Your task to perform on an android device: Open Wikipedia Image 0: 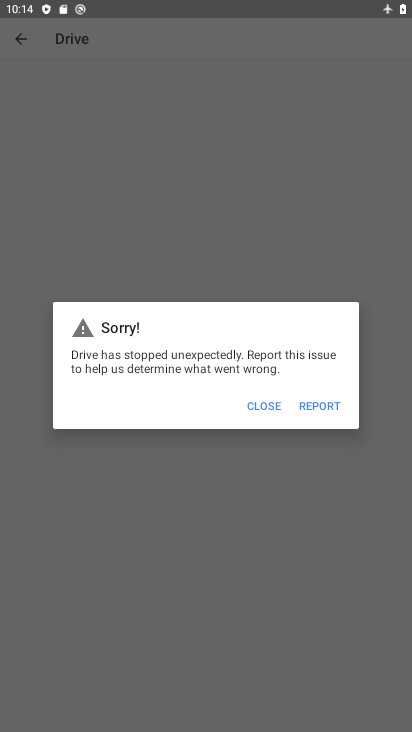
Step 0: press home button
Your task to perform on an android device: Open Wikipedia Image 1: 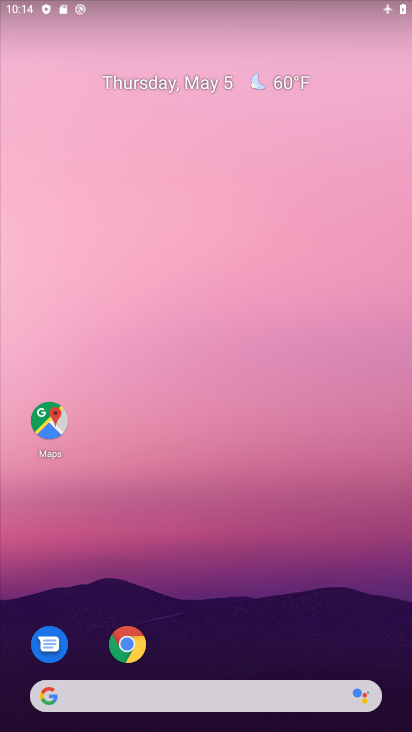
Step 1: drag from (325, 612) to (329, 183)
Your task to perform on an android device: Open Wikipedia Image 2: 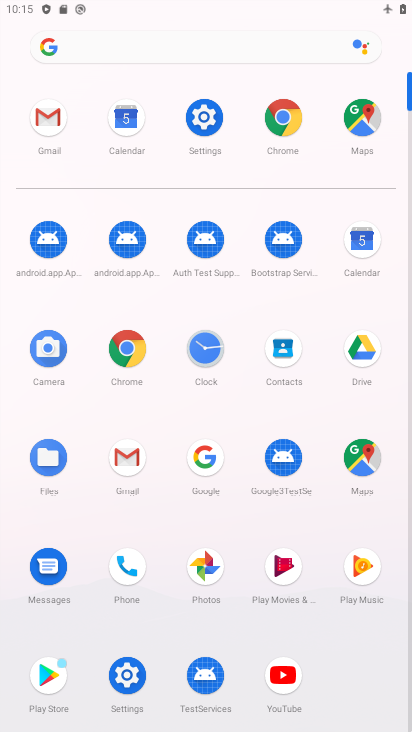
Step 2: click (127, 345)
Your task to perform on an android device: Open Wikipedia Image 3: 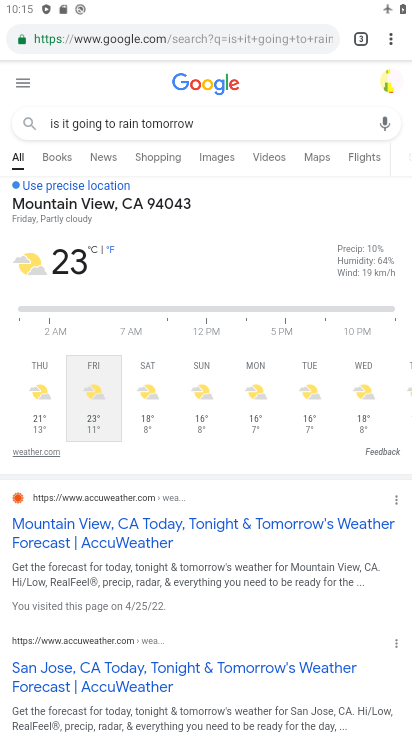
Step 3: click (357, 43)
Your task to perform on an android device: Open Wikipedia Image 4: 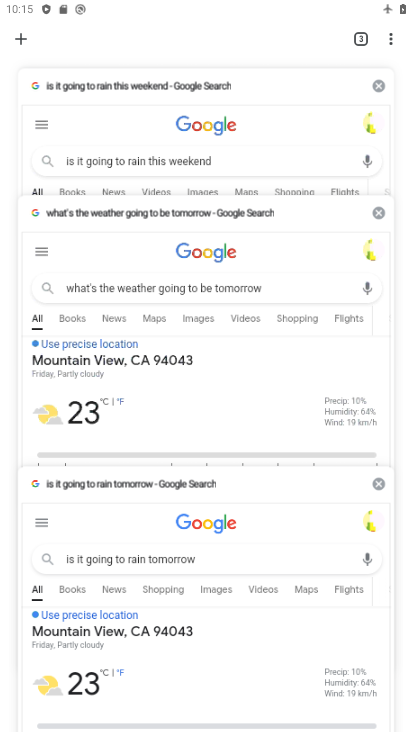
Step 4: click (15, 39)
Your task to perform on an android device: Open Wikipedia Image 5: 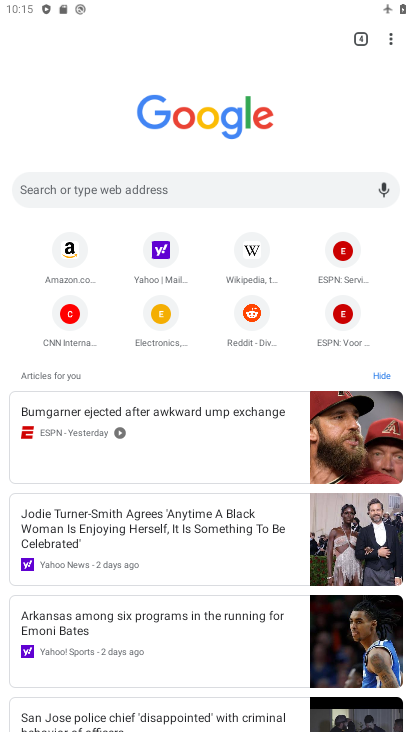
Step 5: click (259, 267)
Your task to perform on an android device: Open Wikipedia Image 6: 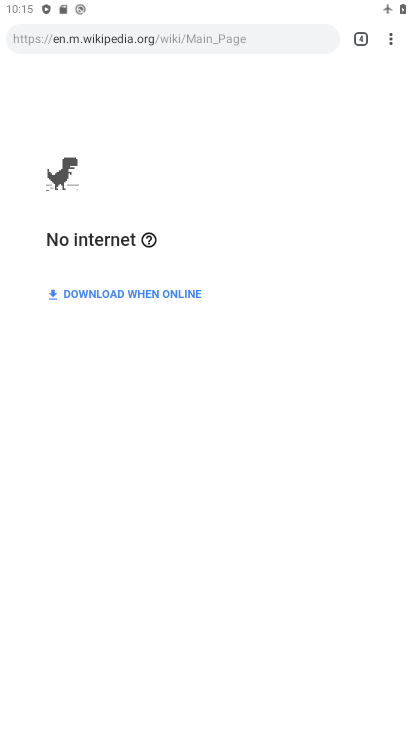
Step 6: task complete